Your task to perform on an android device: What's the weather going to be tomorrow? Image 0: 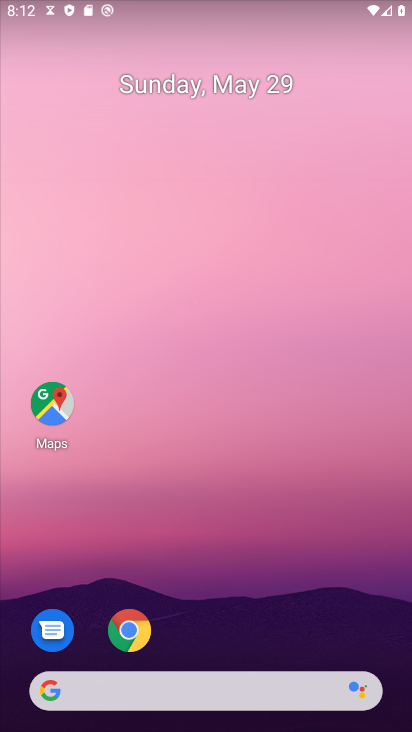
Step 0: drag from (195, 555) to (174, 355)
Your task to perform on an android device: What's the weather going to be tomorrow? Image 1: 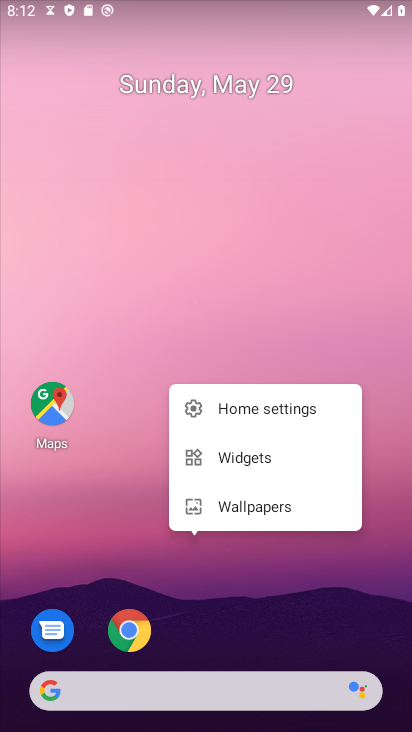
Step 1: click (325, 605)
Your task to perform on an android device: What's the weather going to be tomorrow? Image 2: 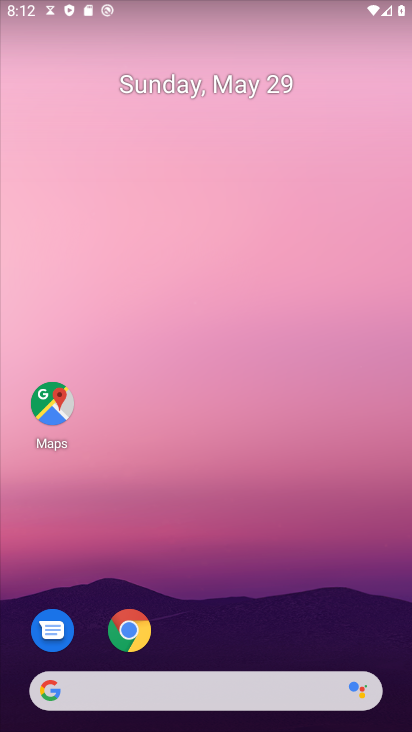
Step 2: drag from (325, 605) to (311, 87)
Your task to perform on an android device: What's the weather going to be tomorrow? Image 3: 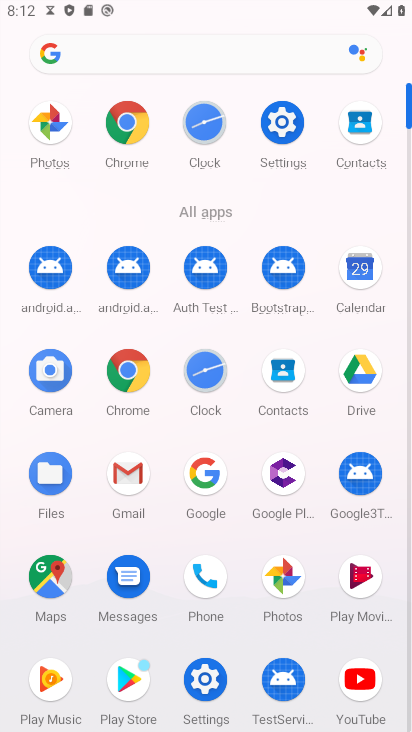
Step 3: click (198, 467)
Your task to perform on an android device: What's the weather going to be tomorrow? Image 4: 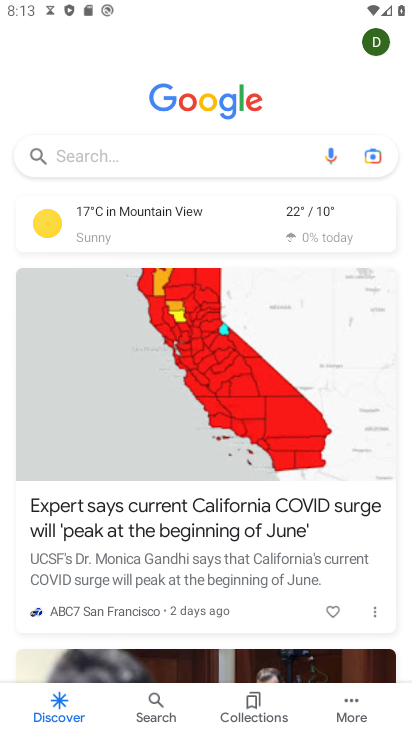
Step 4: click (309, 212)
Your task to perform on an android device: What's the weather going to be tomorrow? Image 5: 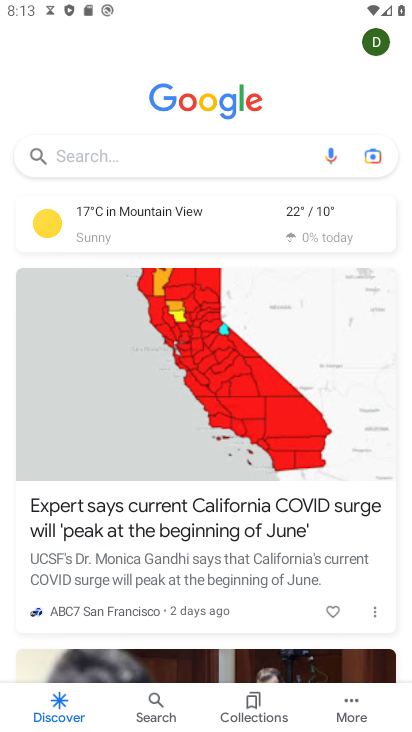
Step 5: click (309, 212)
Your task to perform on an android device: What's the weather going to be tomorrow? Image 6: 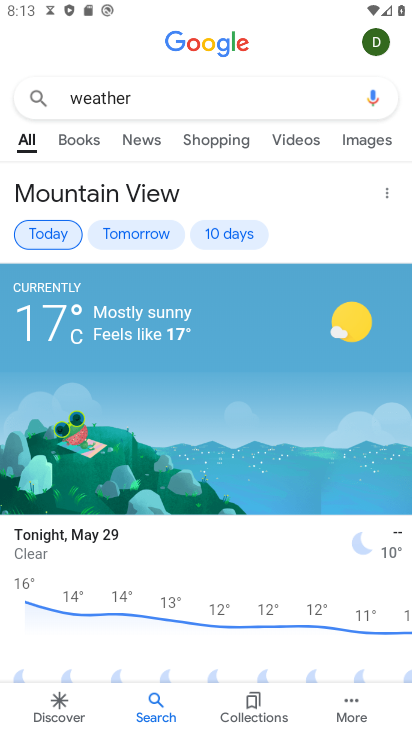
Step 6: click (206, 218)
Your task to perform on an android device: What's the weather going to be tomorrow? Image 7: 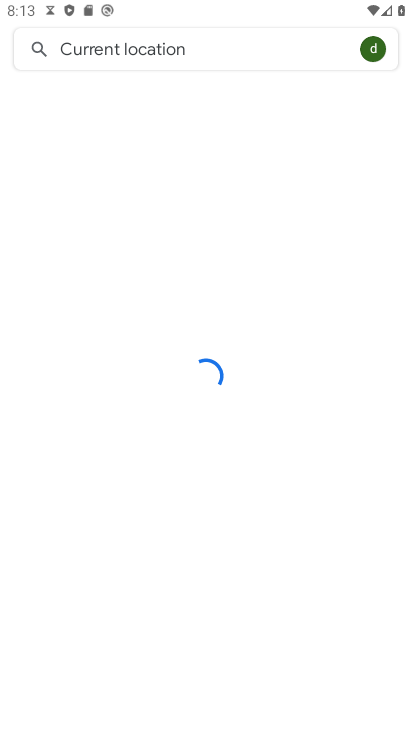
Step 7: click (156, 245)
Your task to perform on an android device: What's the weather going to be tomorrow? Image 8: 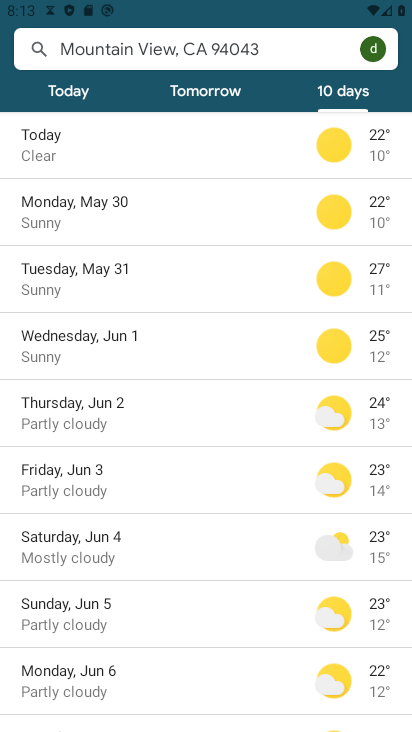
Step 8: click (191, 290)
Your task to perform on an android device: What's the weather going to be tomorrow? Image 9: 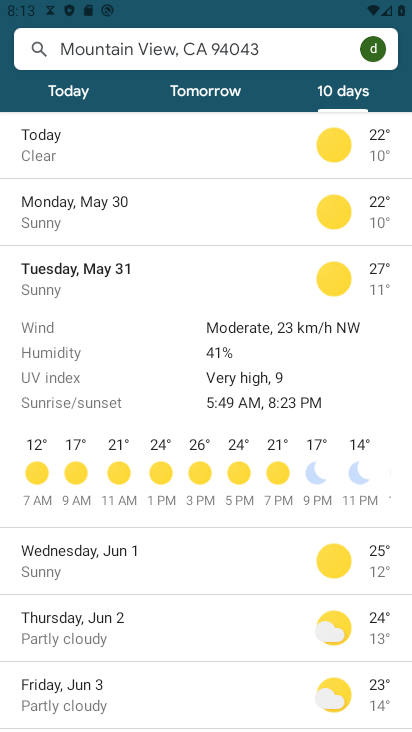
Step 9: task complete